Your task to perform on an android device: turn off picture-in-picture Image 0: 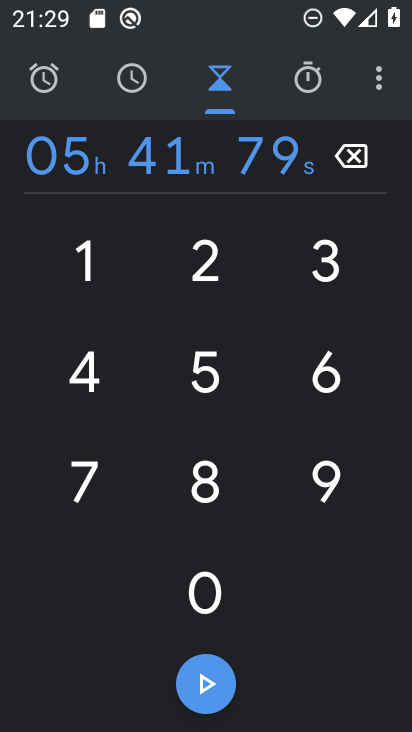
Step 0: press home button
Your task to perform on an android device: turn off picture-in-picture Image 1: 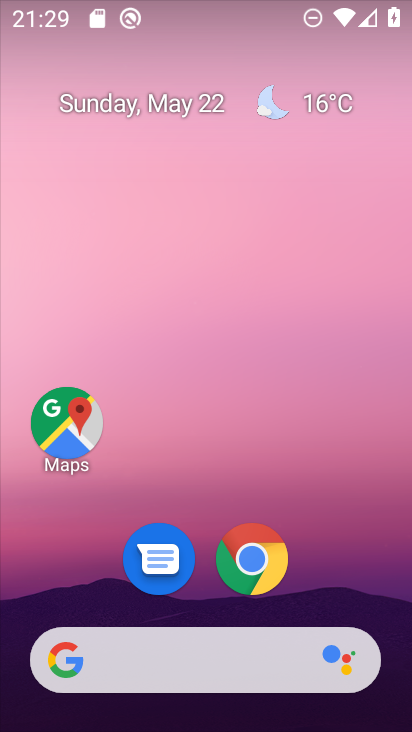
Step 1: drag from (285, 689) to (309, 227)
Your task to perform on an android device: turn off picture-in-picture Image 2: 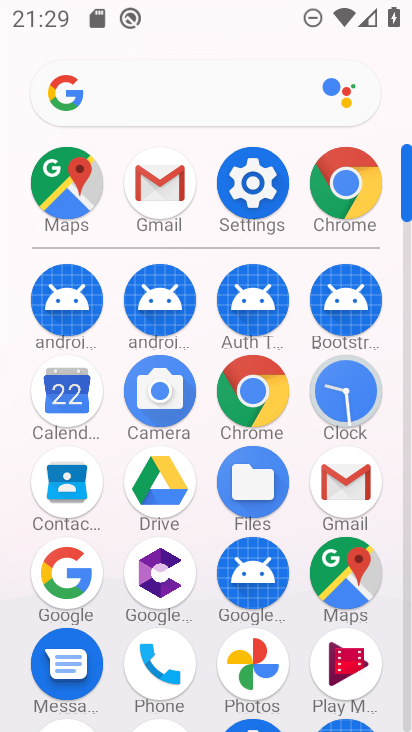
Step 2: click (251, 209)
Your task to perform on an android device: turn off picture-in-picture Image 3: 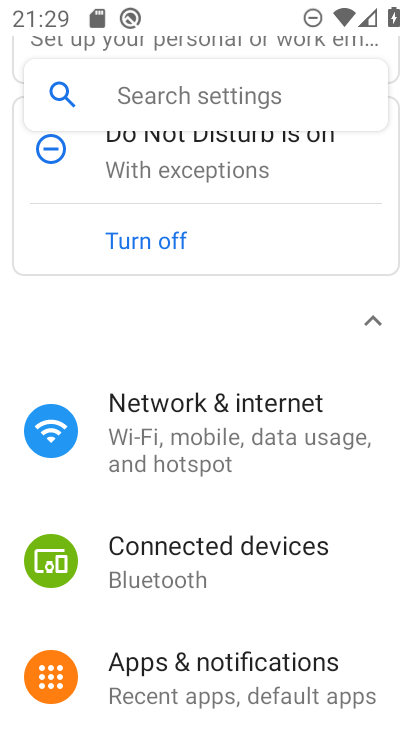
Step 3: click (188, 101)
Your task to perform on an android device: turn off picture-in-picture Image 4: 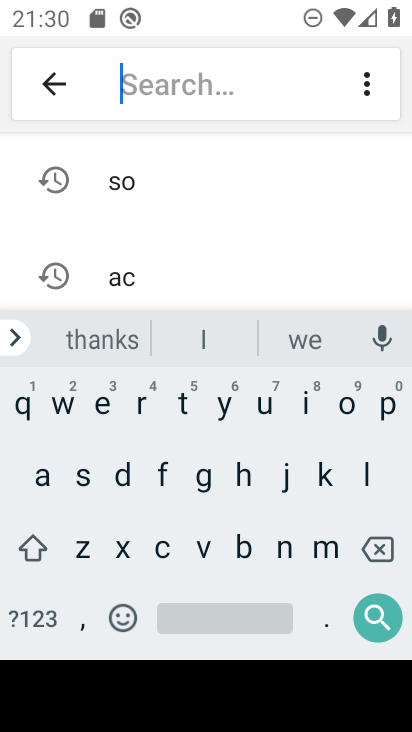
Step 4: click (379, 405)
Your task to perform on an android device: turn off picture-in-picture Image 5: 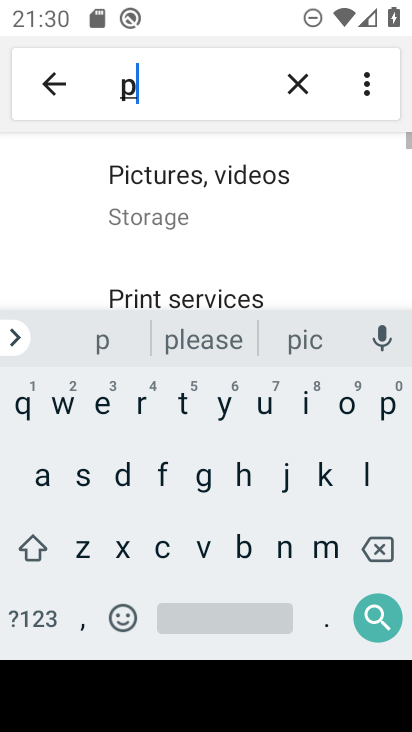
Step 5: click (308, 411)
Your task to perform on an android device: turn off picture-in-picture Image 6: 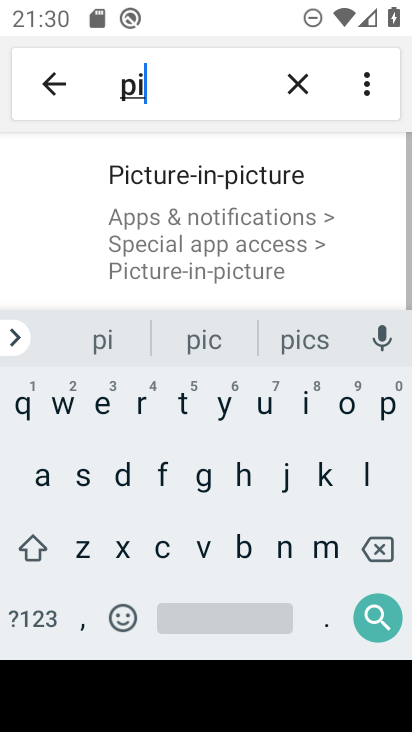
Step 6: click (163, 540)
Your task to perform on an android device: turn off picture-in-picture Image 7: 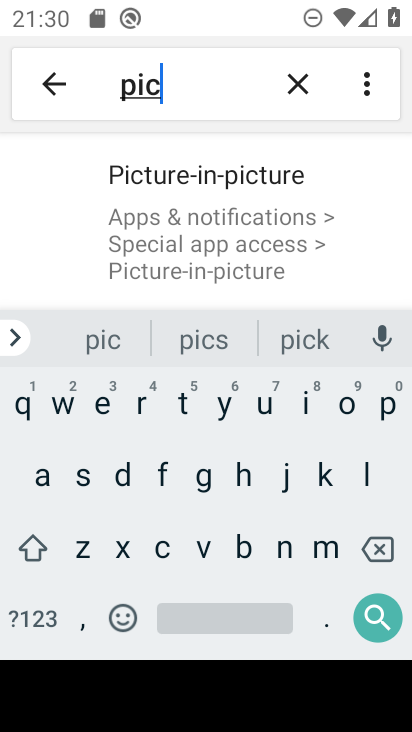
Step 7: click (214, 212)
Your task to perform on an android device: turn off picture-in-picture Image 8: 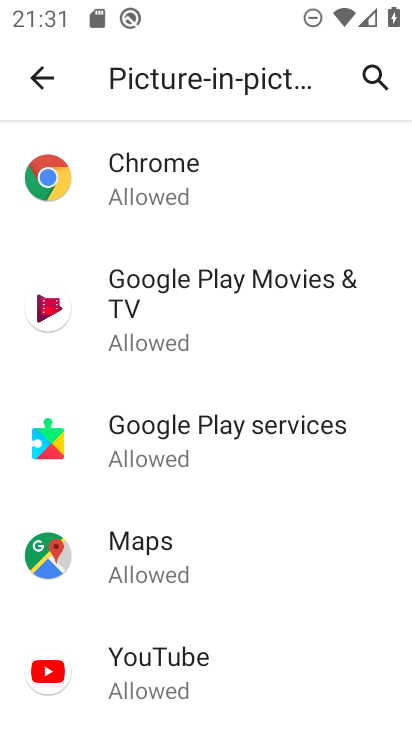
Step 8: task complete